Your task to perform on an android device: Open Youtube and go to "Your channel" Image 0: 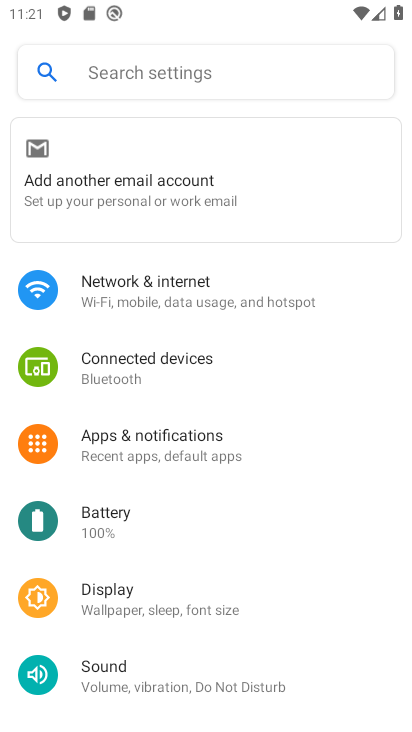
Step 0: press home button
Your task to perform on an android device: Open Youtube and go to "Your channel" Image 1: 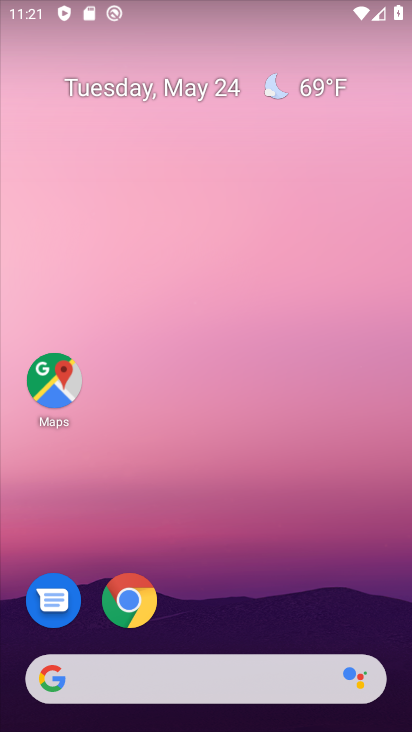
Step 1: drag from (382, 634) to (365, 197)
Your task to perform on an android device: Open Youtube and go to "Your channel" Image 2: 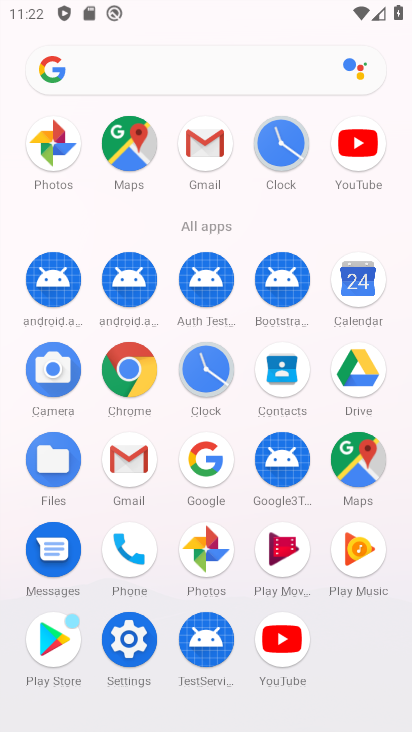
Step 2: click (285, 649)
Your task to perform on an android device: Open Youtube and go to "Your channel" Image 3: 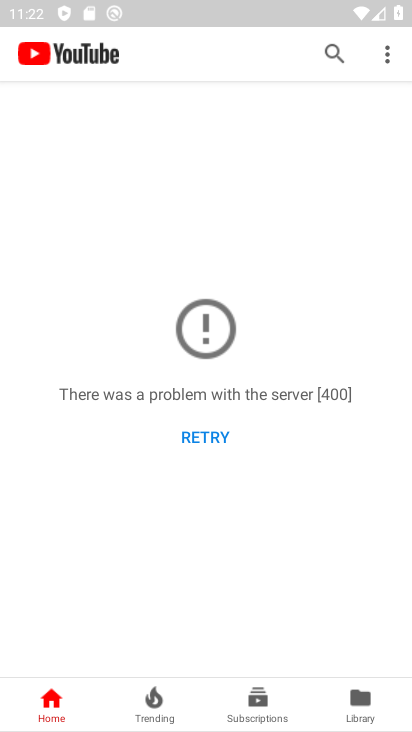
Step 3: click (388, 62)
Your task to perform on an android device: Open Youtube and go to "Your channel" Image 4: 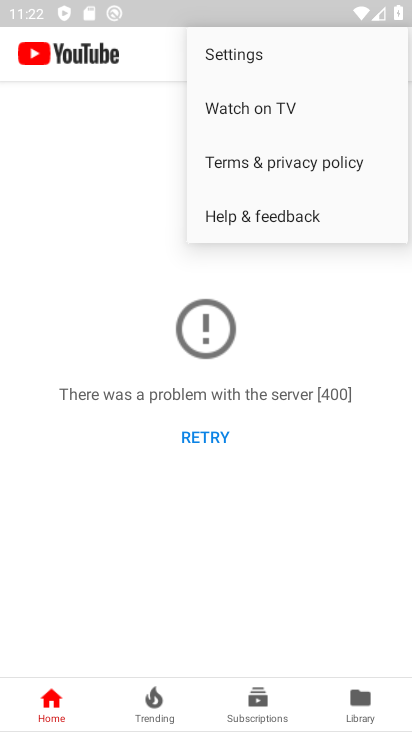
Step 4: click (116, 275)
Your task to perform on an android device: Open Youtube and go to "Your channel" Image 5: 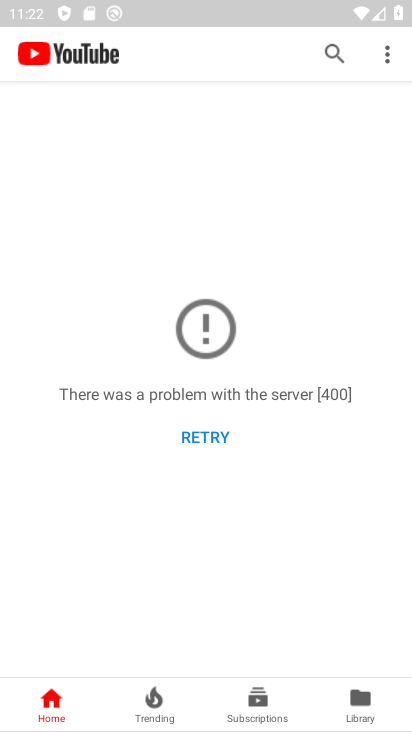
Step 5: task complete